Your task to perform on an android device: show emergency info Image 0: 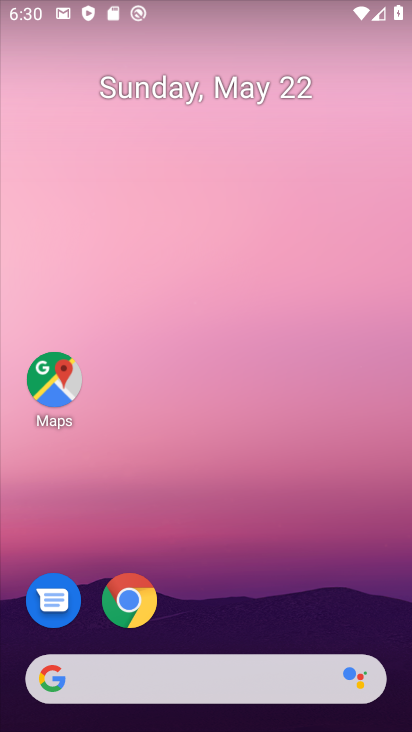
Step 0: drag from (321, 424) to (343, 1)
Your task to perform on an android device: show emergency info Image 1: 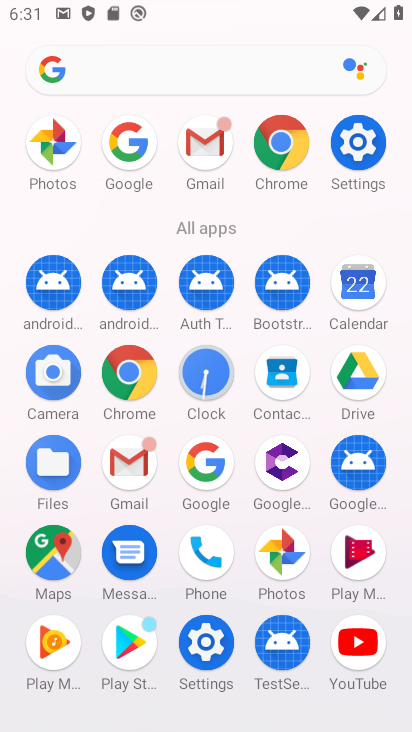
Step 1: click (365, 158)
Your task to perform on an android device: show emergency info Image 2: 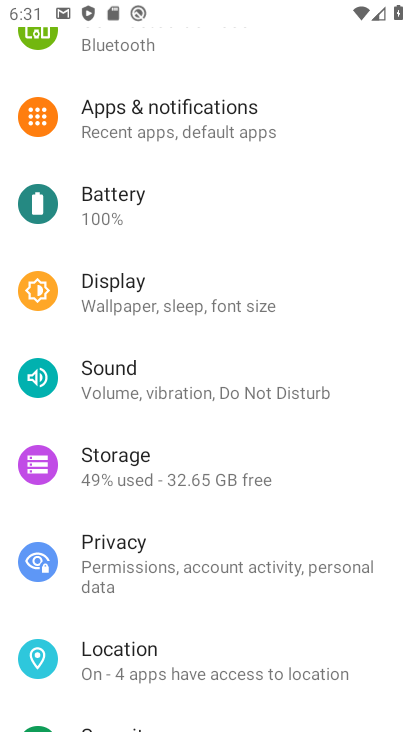
Step 2: drag from (241, 586) to (281, 19)
Your task to perform on an android device: show emergency info Image 3: 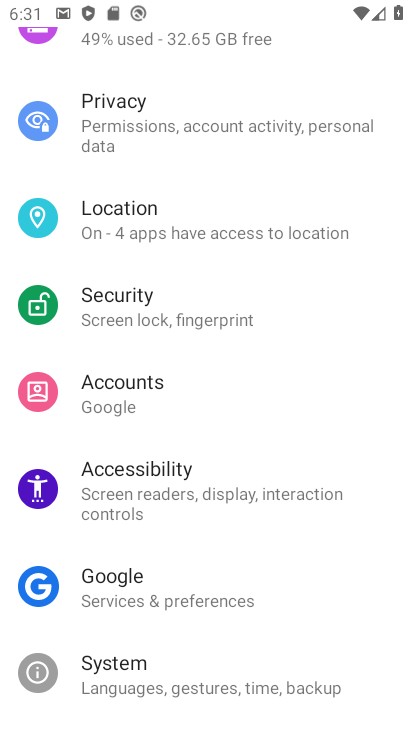
Step 3: drag from (199, 676) to (330, 161)
Your task to perform on an android device: show emergency info Image 4: 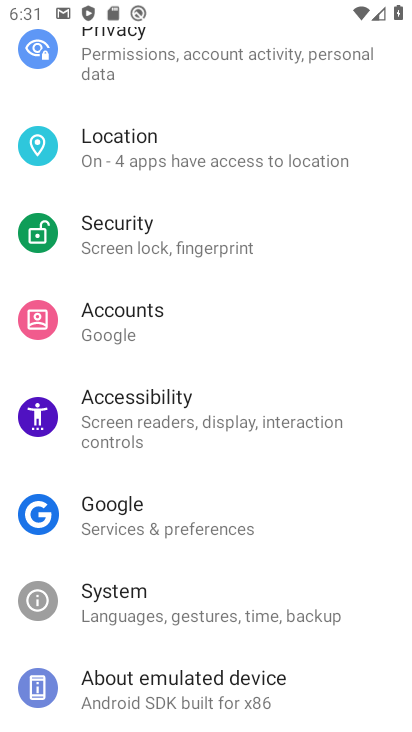
Step 4: click (187, 681)
Your task to perform on an android device: show emergency info Image 5: 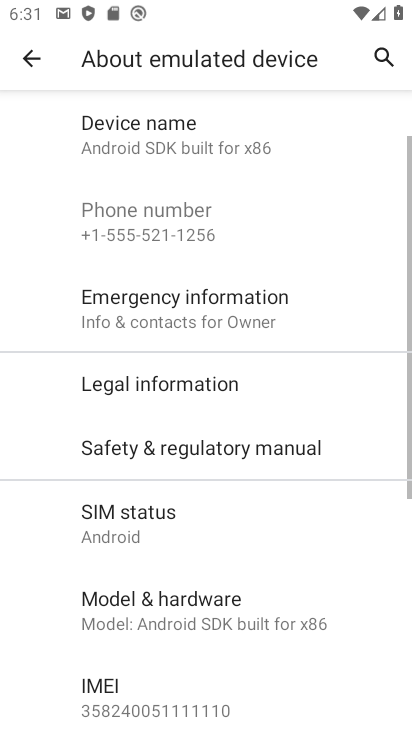
Step 5: click (241, 315)
Your task to perform on an android device: show emergency info Image 6: 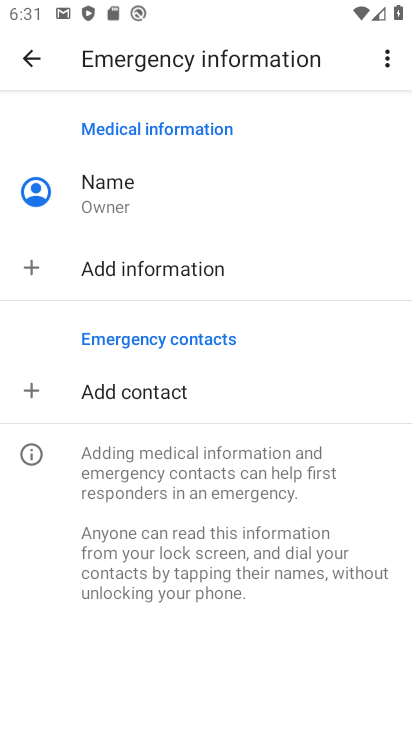
Step 6: task complete